Your task to perform on an android device: Is it going to rain today? Image 0: 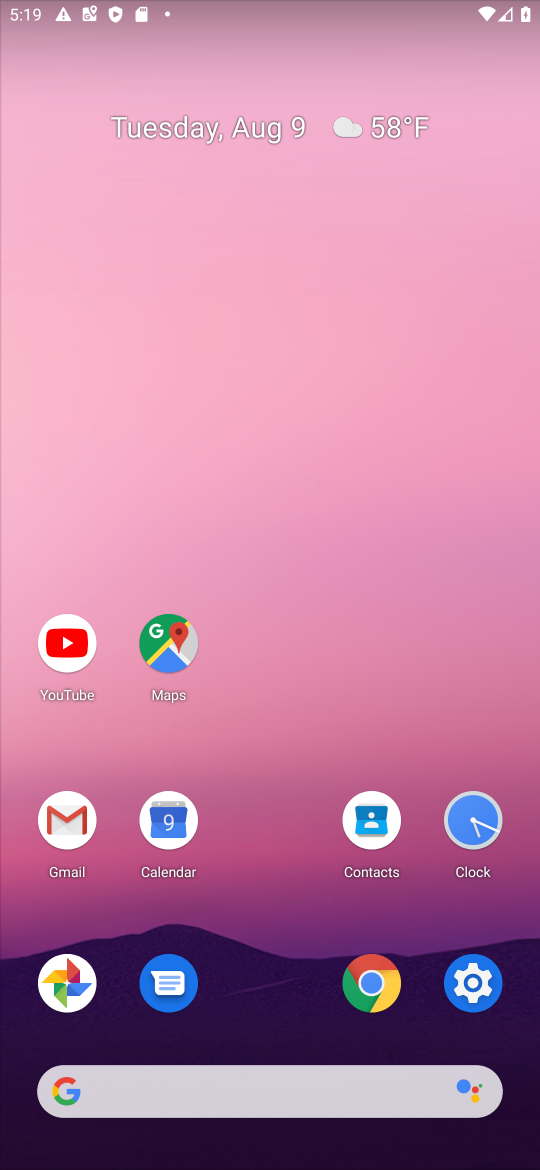
Step 0: click (233, 1080)
Your task to perform on an android device: Is it going to rain today? Image 1: 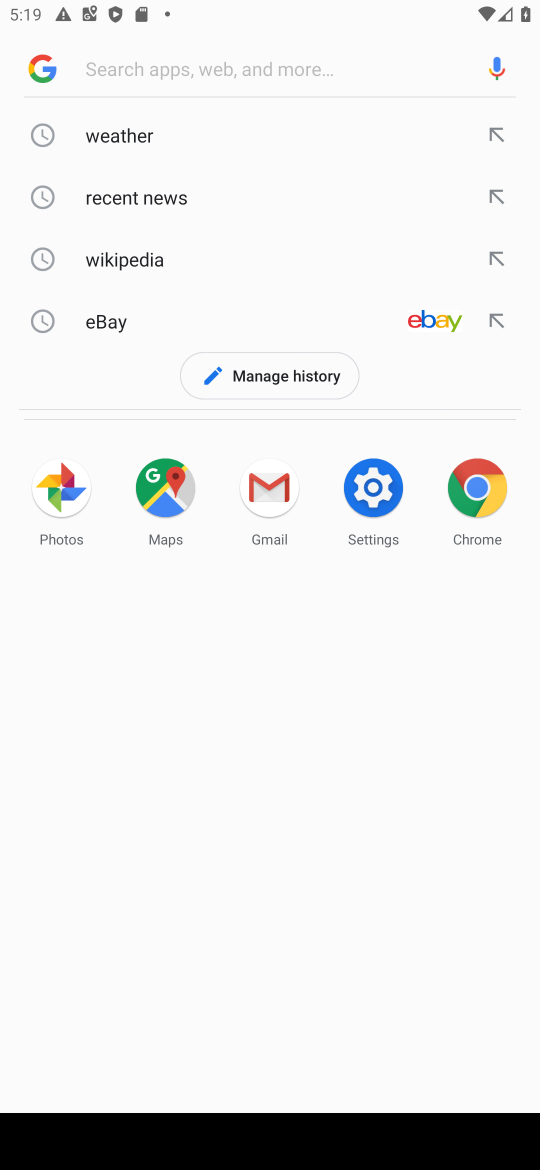
Step 1: click (141, 141)
Your task to perform on an android device: Is it going to rain today? Image 2: 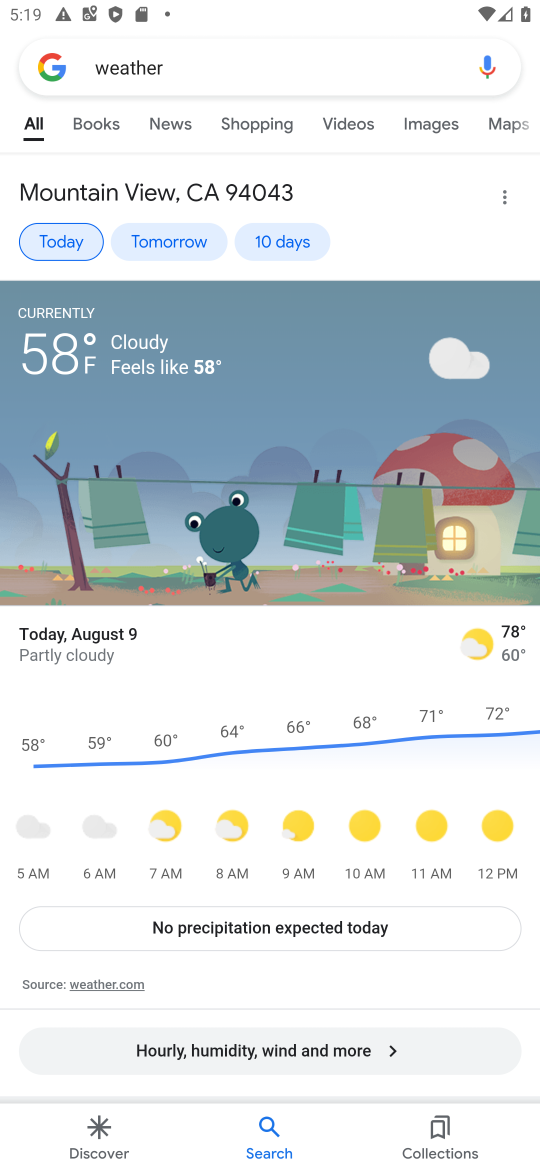
Step 2: task complete